Your task to perform on an android device: Open calendar and show me the fourth week of next month Image 0: 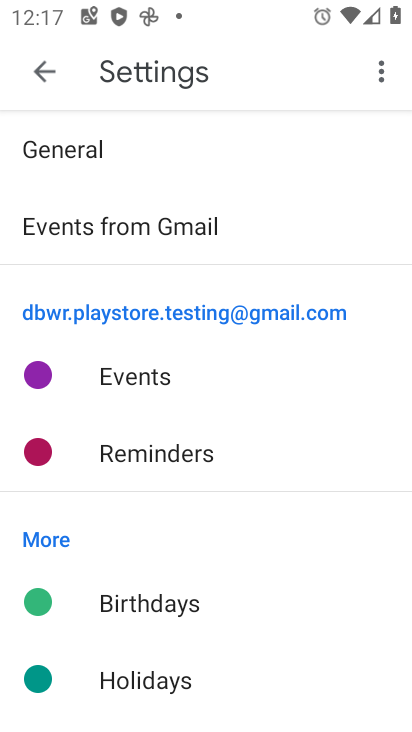
Step 0: press home button
Your task to perform on an android device: Open calendar and show me the fourth week of next month Image 1: 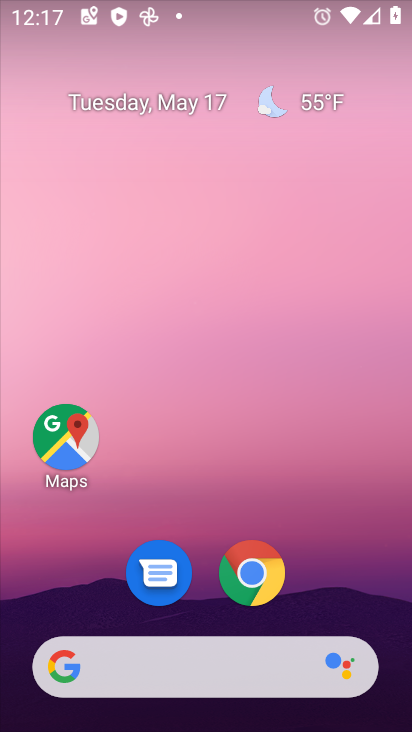
Step 1: drag from (373, 554) to (330, 182)
Your task to perform on an android device: Open calendar and show me the fourth week of next month Image 2: 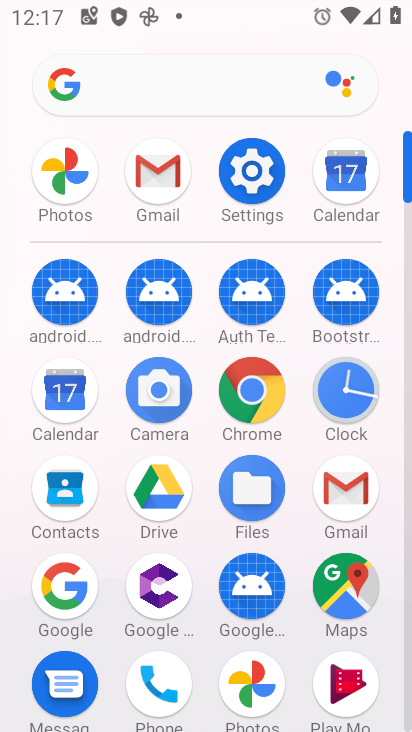
Step 2: click (336, 183)
Your task to perform on an android device: Open calendar and show me the fourth week of next month Image 3: 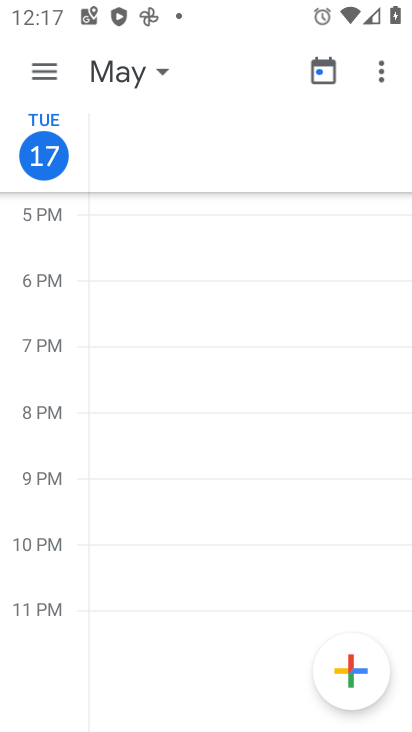
Step 3: click (34, 73)
Your task to perform on an android device: Open calendar and show me the fourth week of next month Image 4: 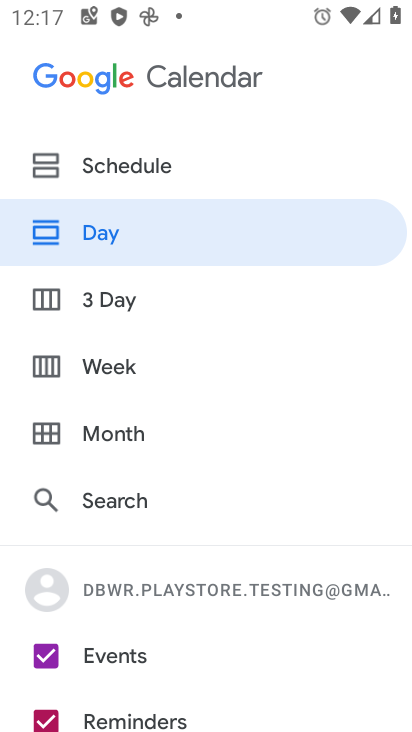
Step 4: click (125, 357)
Your task to perform on an android device: Open calendar and show me the fourth week of next month Image 5: 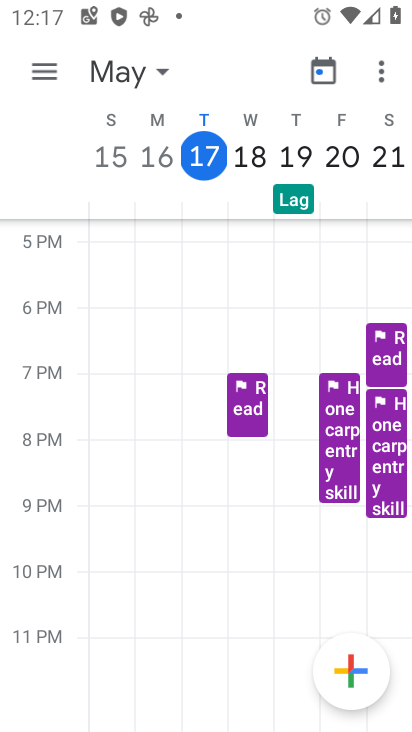
Step 5: click (151, 71)
Your task to perform on an android device: Open calendar and show me the fourth week of next month Image 6: 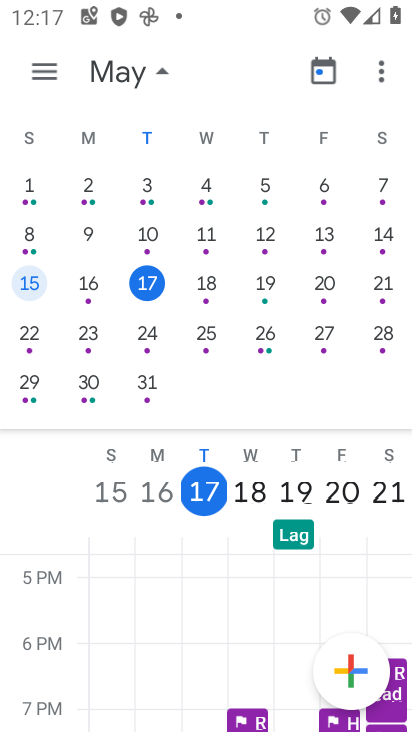
Step 6: drag from (353, 293) to (51, 242)
Your task to perform on an android device: Open calendar and show me the fourth week of next month Image 7: 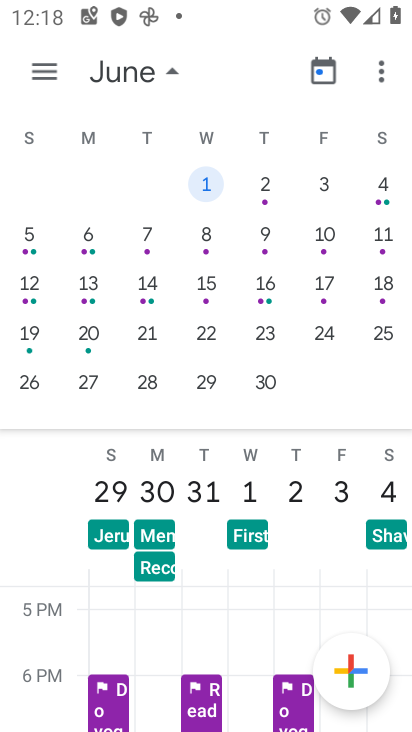
Step 7: click (30, 388)
Your task to perform on an android device: Open calendar and show me the fourth week of next month Image 8: 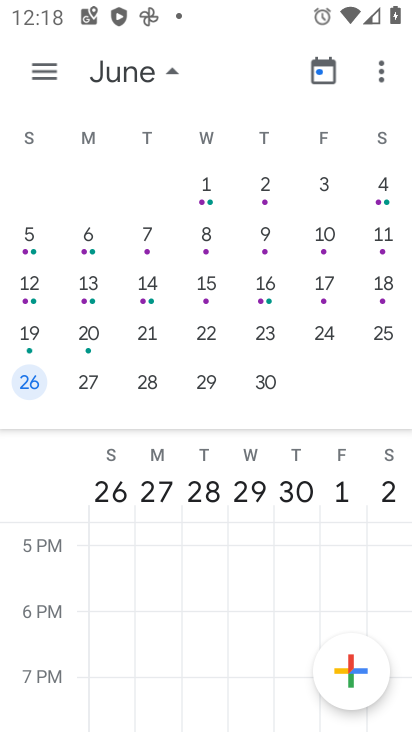
Step 8: click (86, 383)
Your task to perform on an android device: Open calendar and show me the fourth week of next month Image 9: 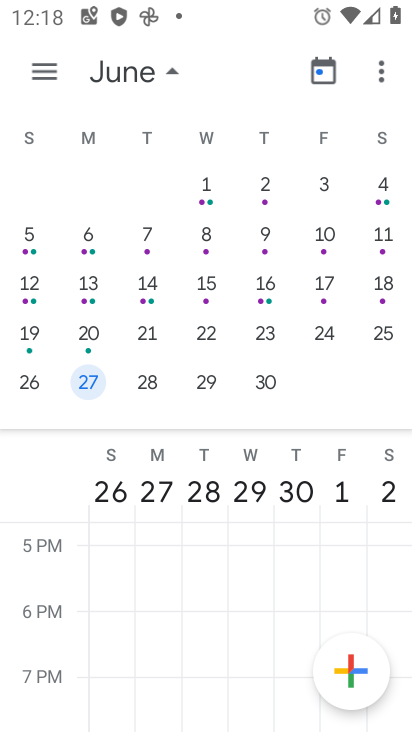
Step 9: task complete